Your task to perform on an android device: Open Android settings Image 0: 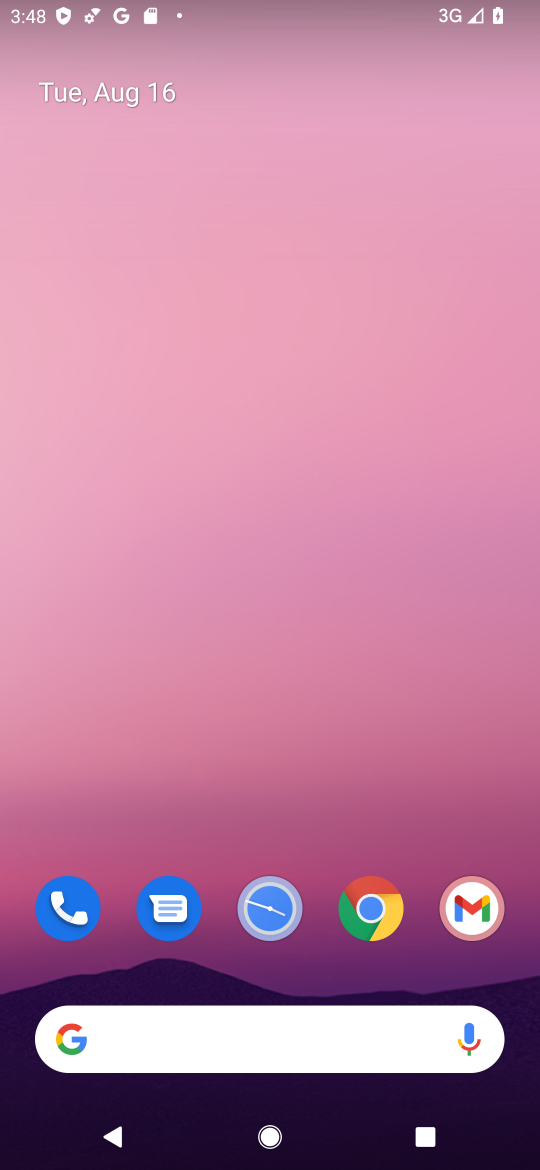
Step 0: drag from (232, 982) to (445, 116)
Your task to perform on an android device: Open Android settings Image 1: 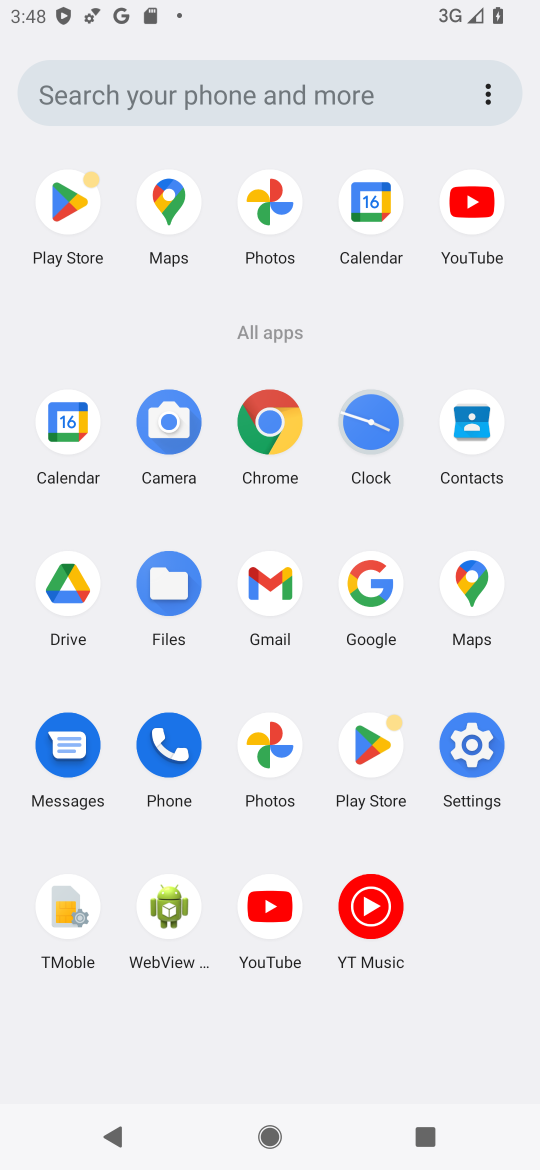
Step 1: click (487, 743)
Your task to perform on an android device: Open Android settings Image 2: 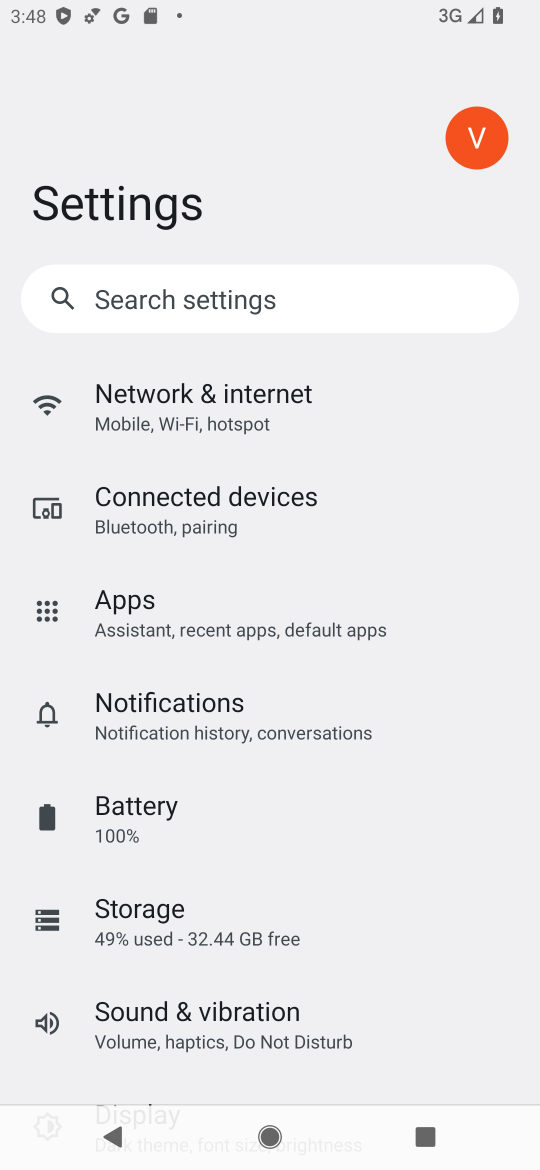
Step 2: drag from (175, 997) to (333, 29)
Your task to perform on an android device: Open Android settings Image 3: 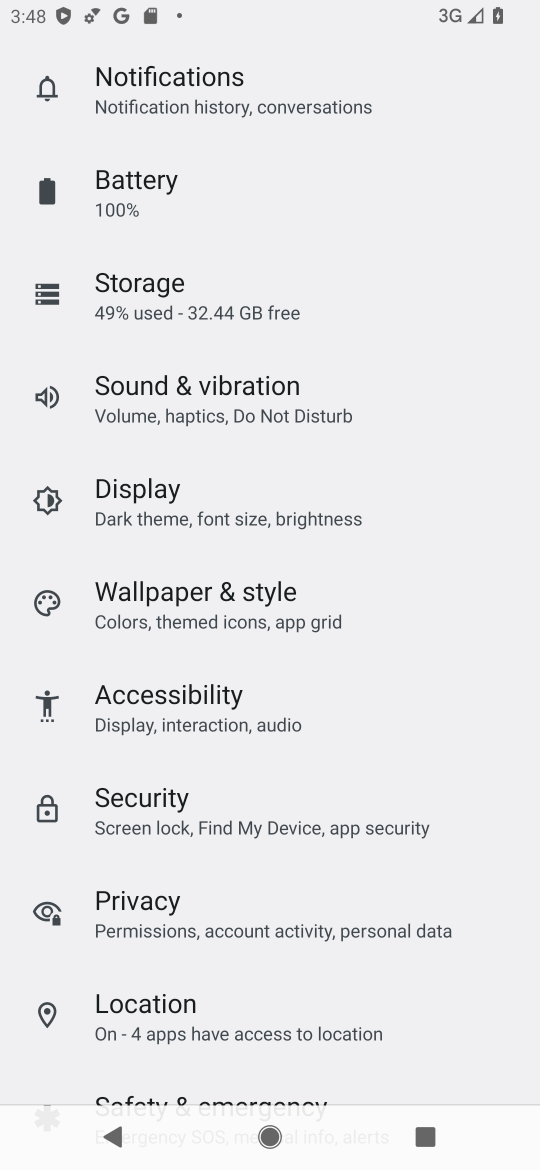
Step 3: drag from (180, 1037) to (355, 7)
Your task to perform on an android device: Open Android settings Image 4: 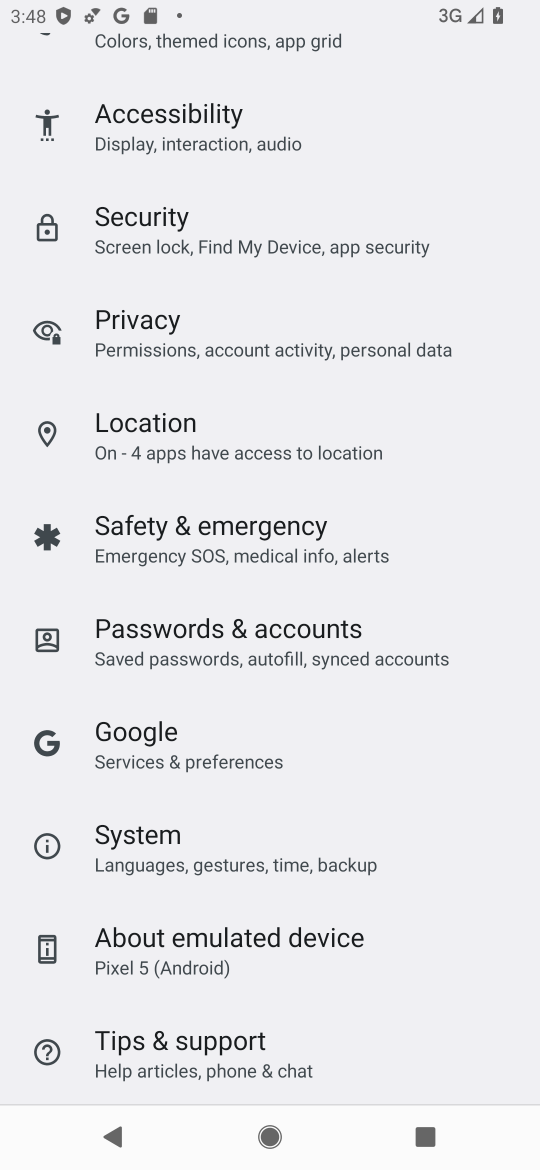
Step 4: drag from (266, 698) to (389, 13)
Your task to perform on an android device: Open Android settings Image 5: 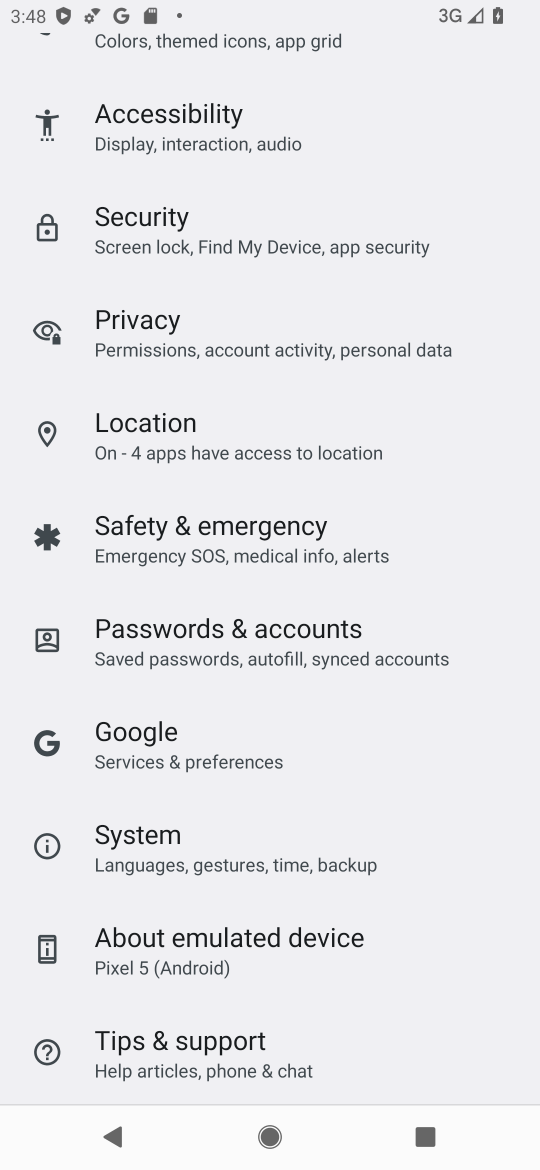
Step 5: click (240, 961)
Your task to perform on an android device: Open Android settings Image 6: 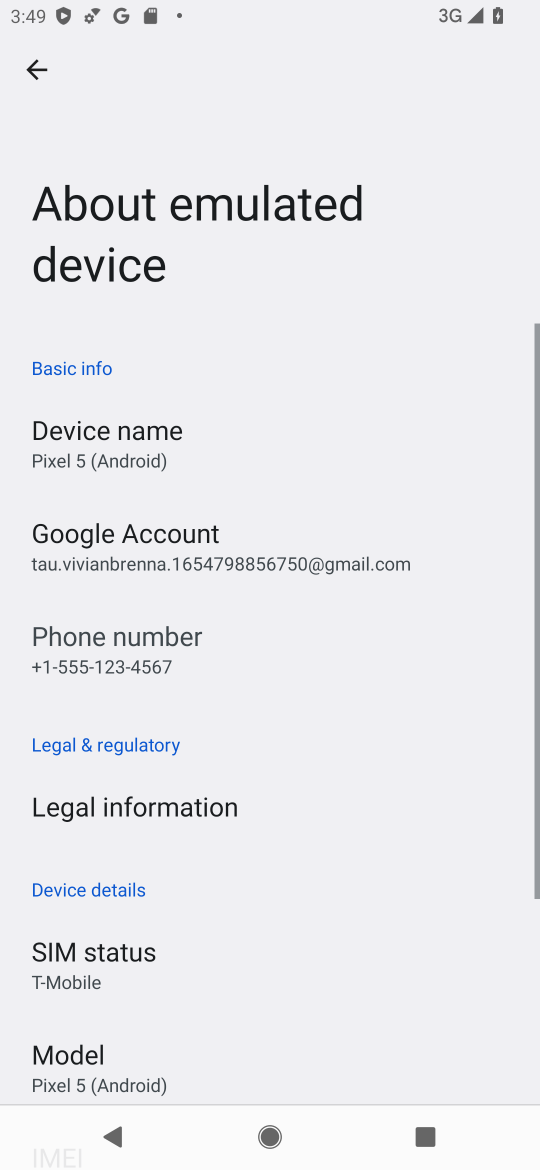
Step 6: task complete